Your task to perform on an android device: Open maps Image 0: 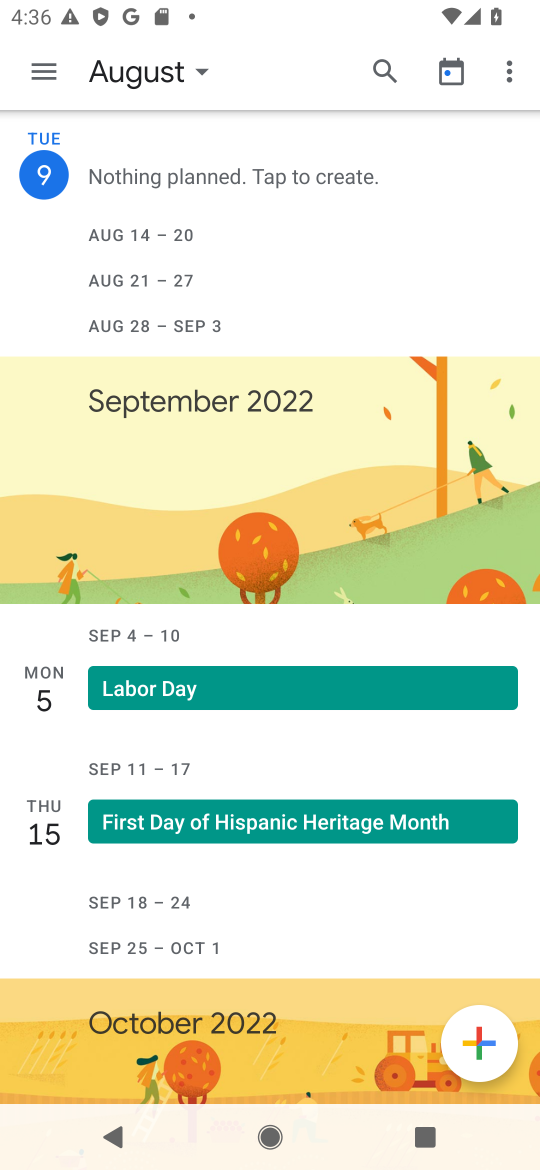
Step 0: press home button
Your task to perform on an android device: Open maps Image 1: 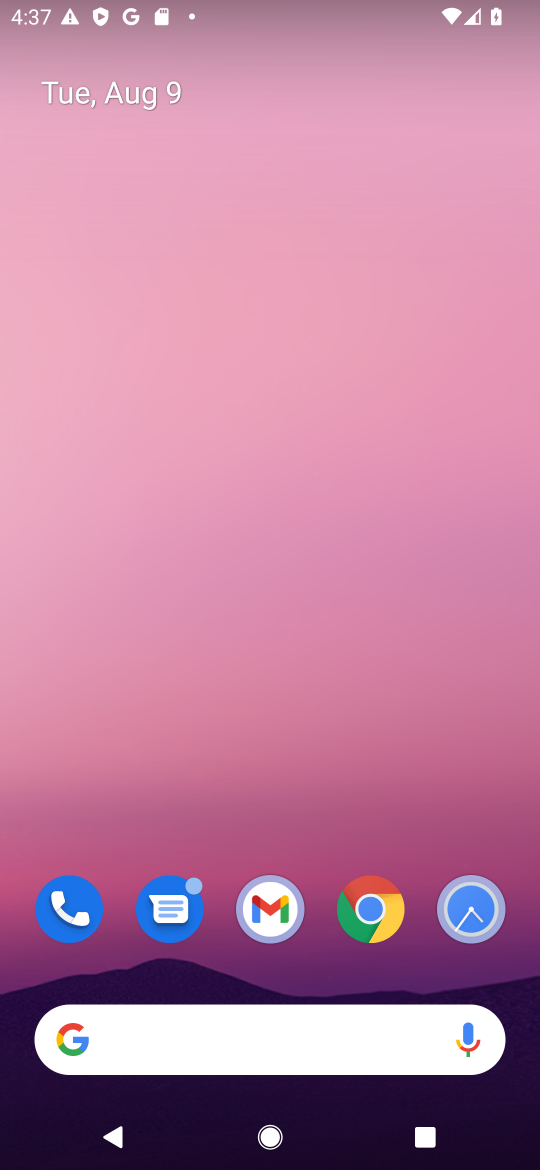
Step 1: drag from (431, 839) to (436, 0)
Your task to perform on an android device: Open maps Image 2: 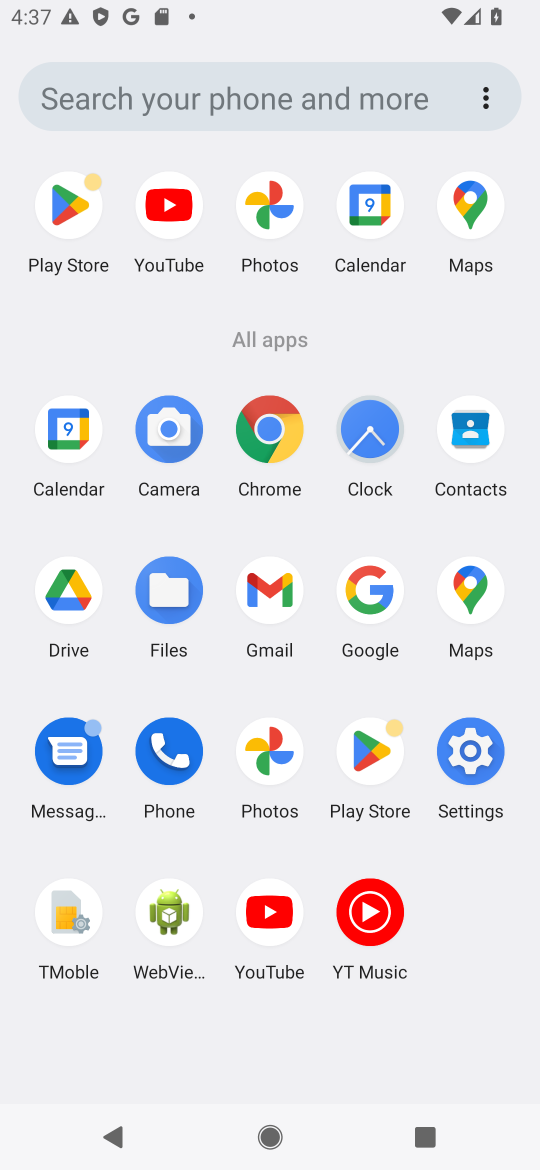
Step 2: click (475, 601)
Your task to perform on an android device: Open maps Image 3: 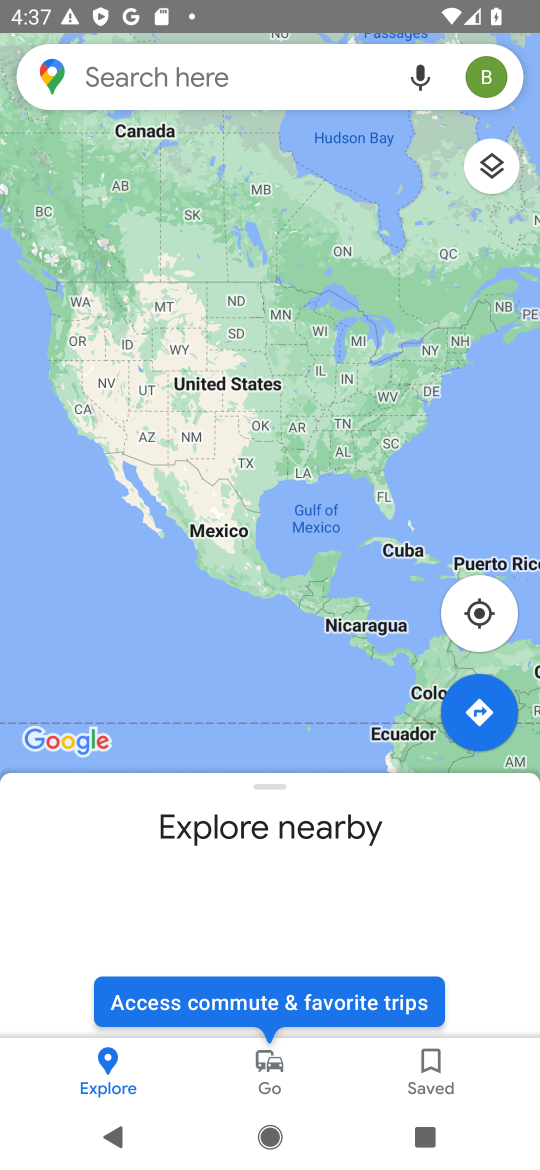
Step 3: task complete